Your task to perform on an android device: Search for sushi restaurants on Maps Image 0: 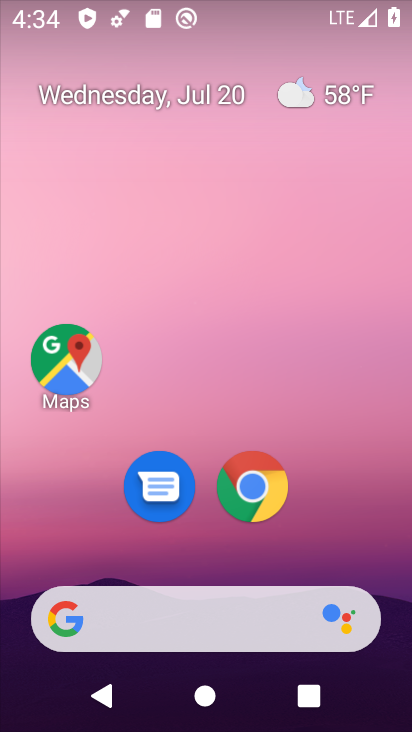
Step 0: click (47, 364)
Your task to perform on an android device: Search for sushi restaurants on Maps Image 1: 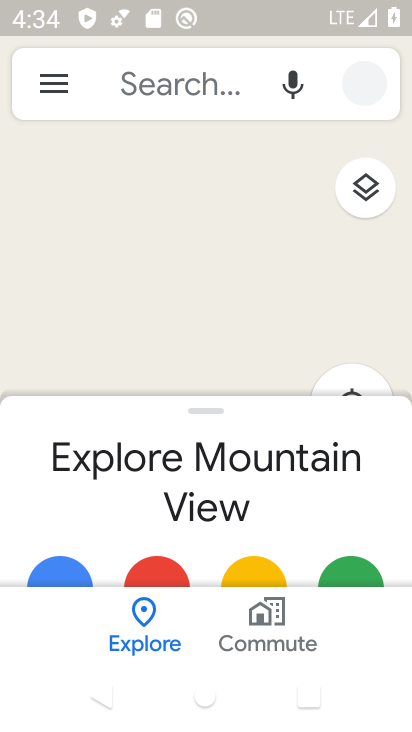
Step 1: click (188, 90)
Your task to perform on an android device: Search for sushi restaurants on Maps Image 2: 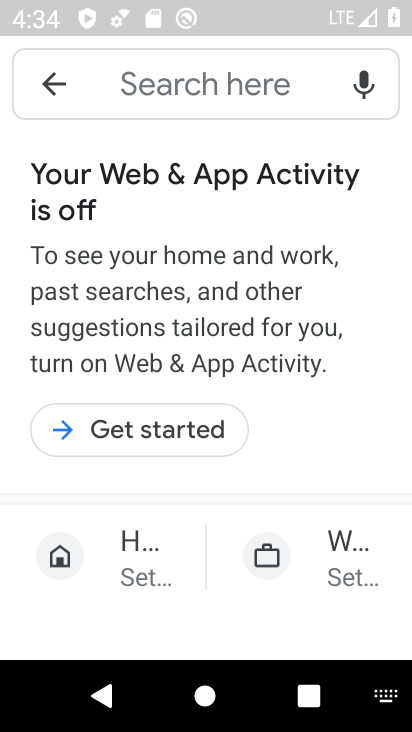
Step 2: drag from (163, 574) to (256, 99)
Your task to perform on an android device: Search for sushi restaurants on Maps Image 3: 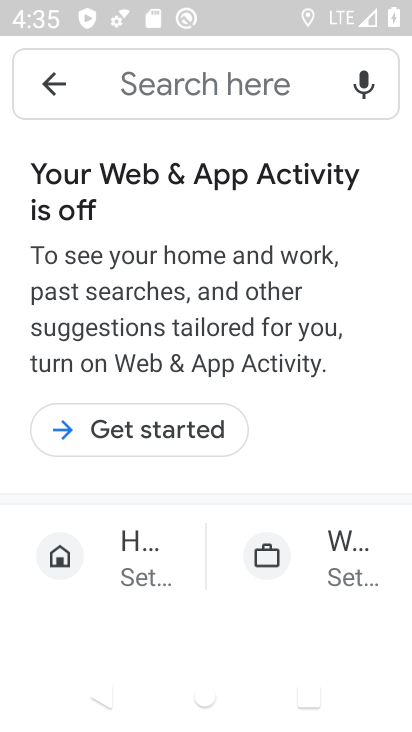
Step 3: drag from (158, 595) to (221, 123)
Your task to perform on an android device: Search for sushi restaurants on Maps Image 4: 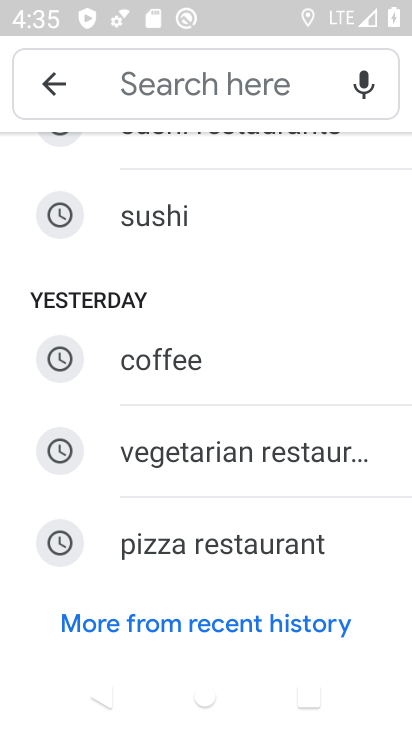
Step 4: drag from (213, 219) to (219, 532)
Your task to perform on an android device: Search for sushi restaurants on Maps Image 5: 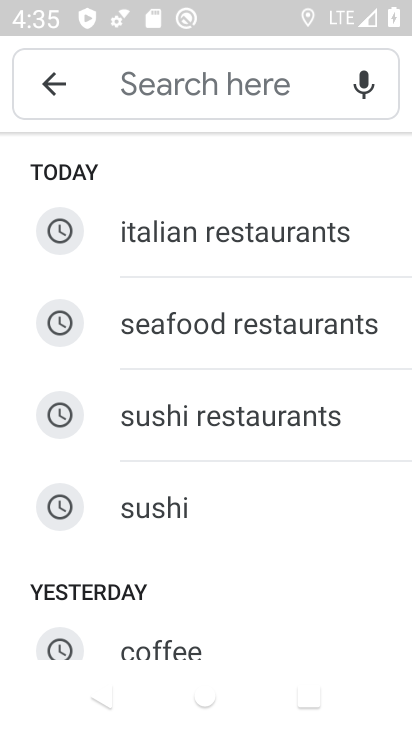
Step 5: click (175, 410)
Your task to perform on an android device: Search for sushi restaurants on Maps Image 6: 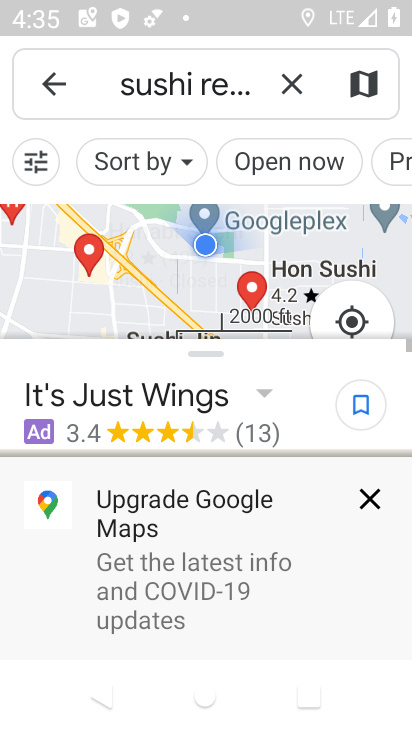
Step 6: task complete